Your task to perform on an android device: Open Maps and search for coffee Image 0: 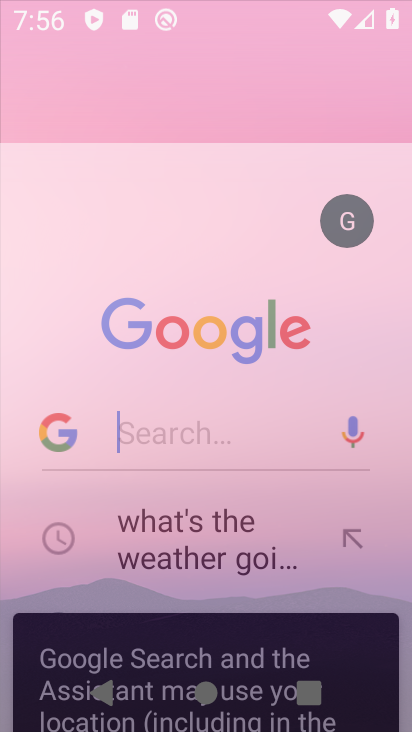
Step 0: press home button
Your task to perform on an android device: Open Maps and search for coffee Image 1: 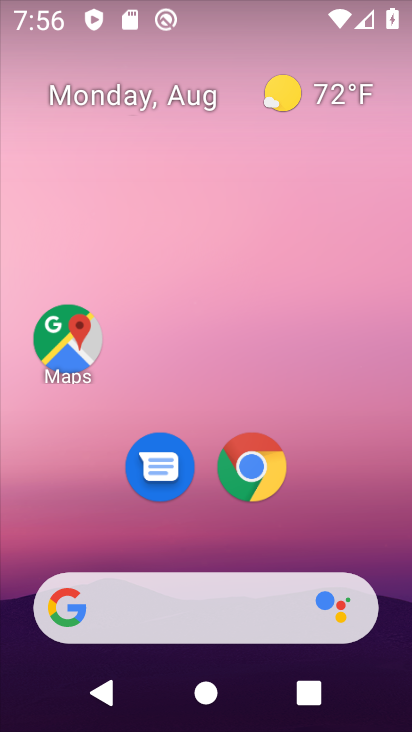
Step 1: drag from (352, 517) to (378, 205)
Your task to perform on an android device: Open Maps and search for coffee Image 2: 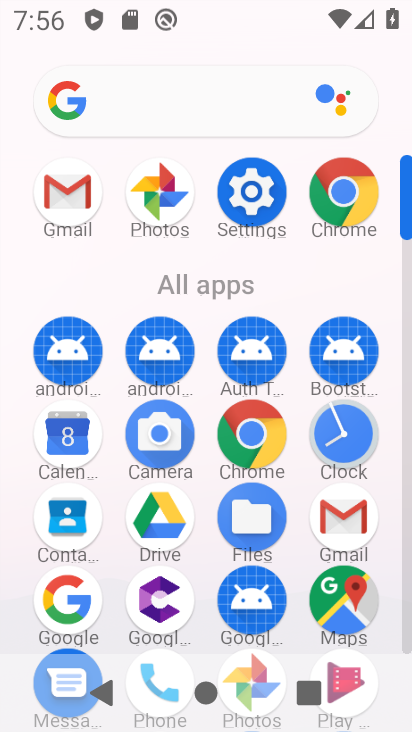
Step 2: click (344, 592)
Your task to perform on an android device: Open Maps and search for coffee Image 3: 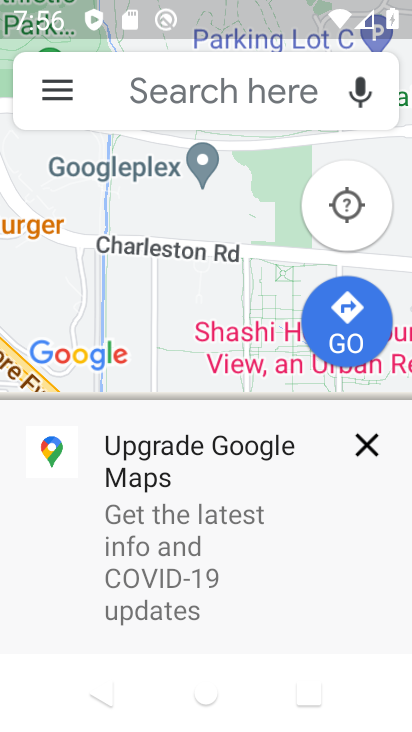
Step 3: click (267, 90)
Your task to perform on an android device: Open Maps and search for coffee Image 4: 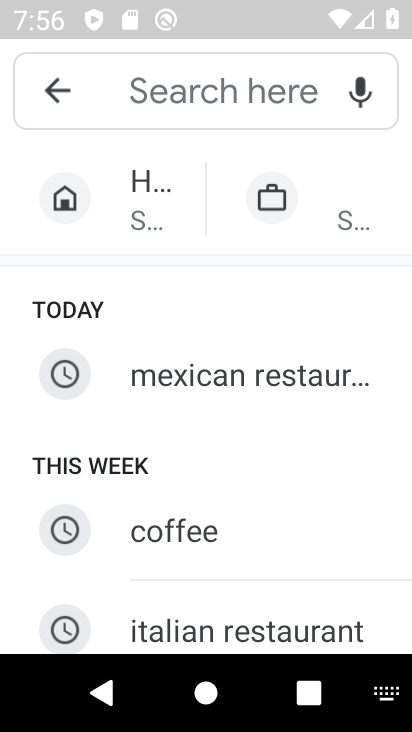
Step 4: type "coffee"
Your task to perform on an android device: Open Maps and search for coffee Image 5: 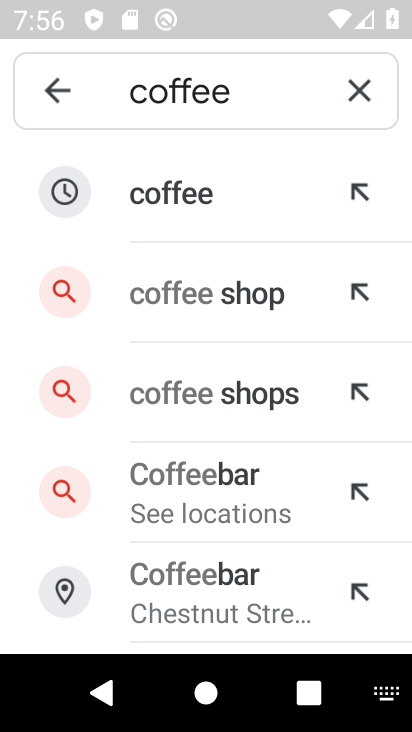
Step 5: click (202, 209)
Your task to perform on an android device: Open Maps and search for coffee Image 6: 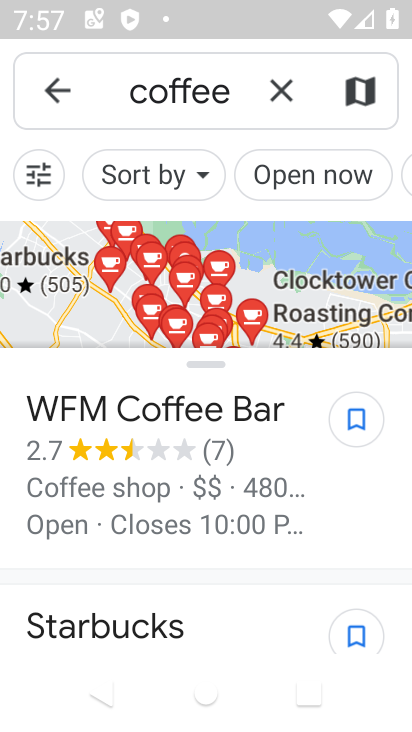
Step 6: task complete